Your task to perform on an android device: What is the recent news? Image 0: 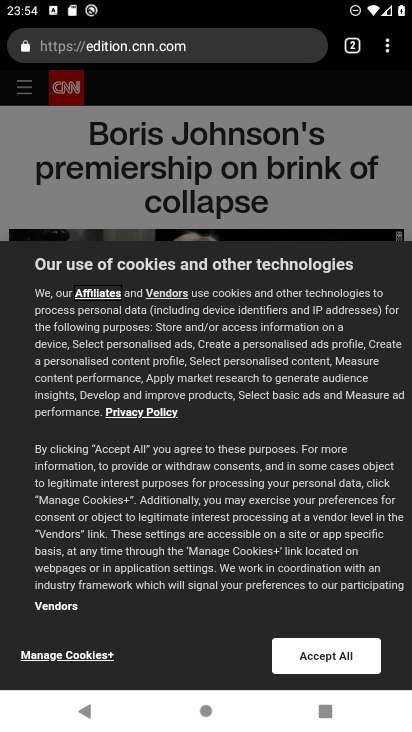
Step 0: press home button
Your task to perform on an android device: What is the recent news? Image 1: 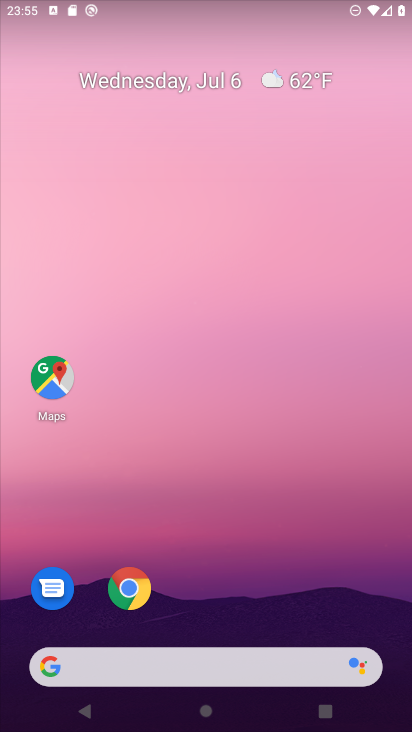
Step 1: task complete